Your task to perform on an android device: Show me productivity apps on the Play Store Image 0: 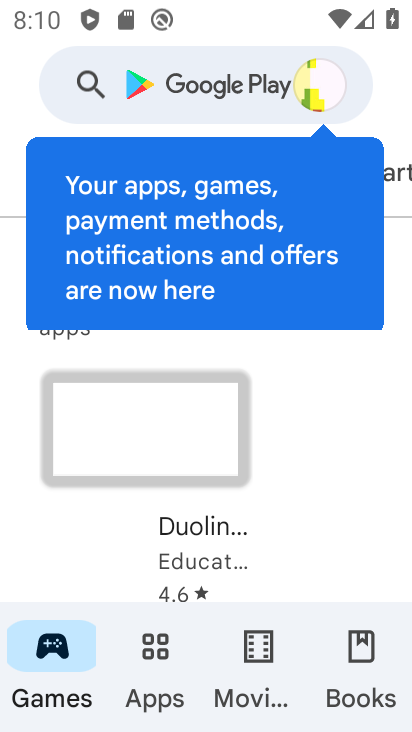
Step 0: press back button
Your task to perform on an android device: Show me productivity apps on the Play Store Image 1: 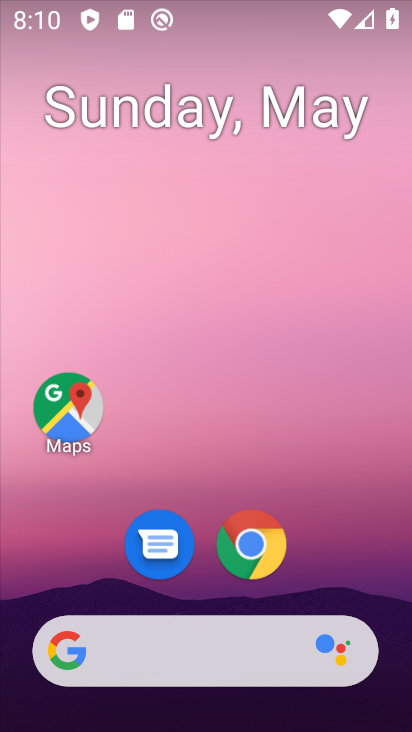
Step 1: drag from (340, 526) to (274, 34)
Your task to perform on an android device: Show me productivity apps on the Play Store Image 2: 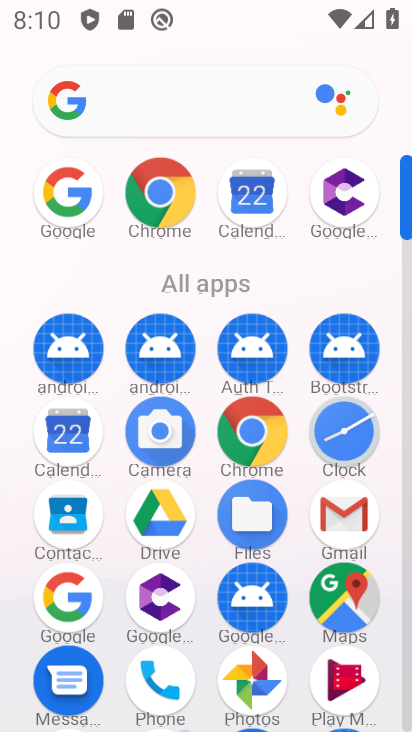
Step 2: drag from (29, 643) to (26, 207)
Your task to perform on an android device: Show me productivity apps on the Play Store Image 3: 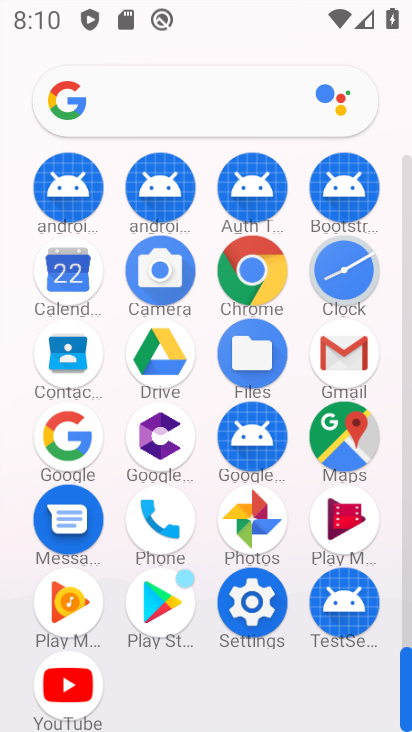
Step 3: click (158, 598)
Your task to perform on an android device: Show me productivity apps on the Play Store Image 4: 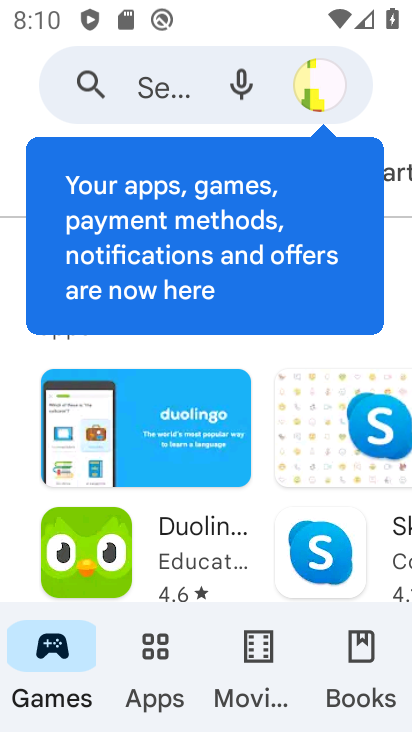
Step 4: click (144, 663)
Your task to perform on an android device: Show me productivity apps on the Play Store Image 5: 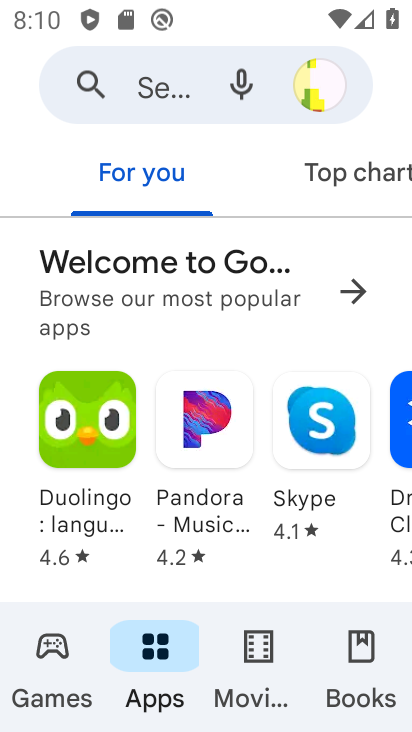
Step 5: drag from (382, 169) to (49, 182)
Your task to perform on an android device: Show me productivity apps on the Play Store Image 6: 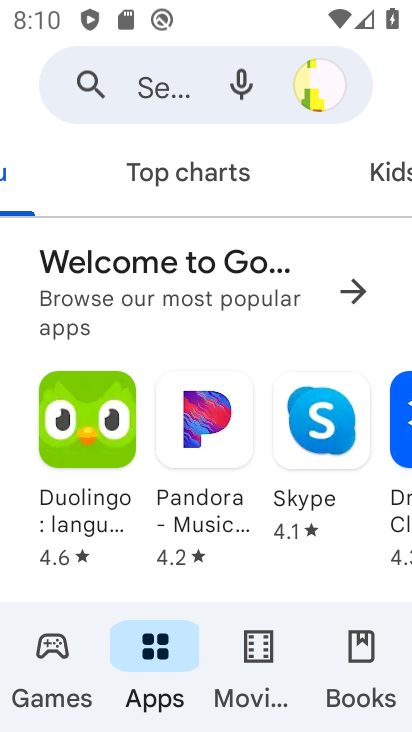
Step 6: drag from (262, 168) to (0, 172)
Your task to perform on an android device: Show me productivity apps on the Play Store Image 7: 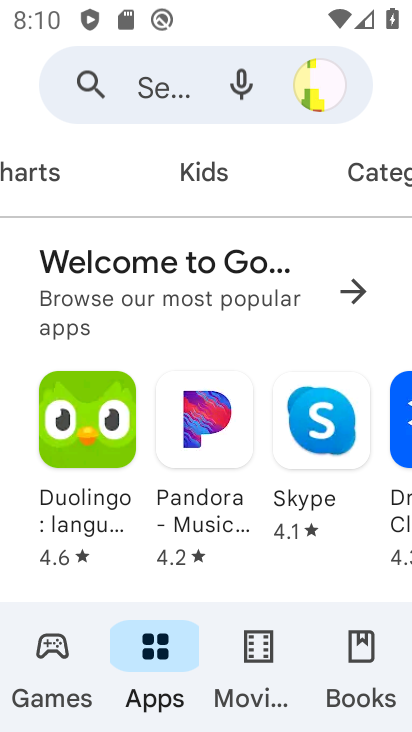
Step 7: click (355, 166)
Your task to perform on an android device: Show me productivity apps on the Play Store Image 8: 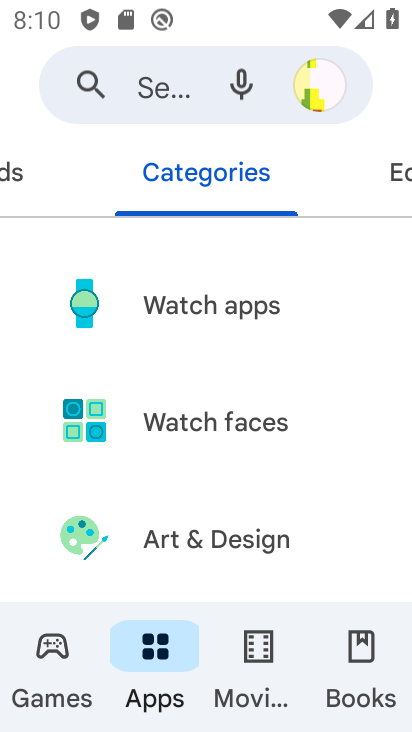
Step 8: drag from (275, 546) to (318, 222)
Your task to perform on an android device: Show me productivity apps on the Play Store Image 9: 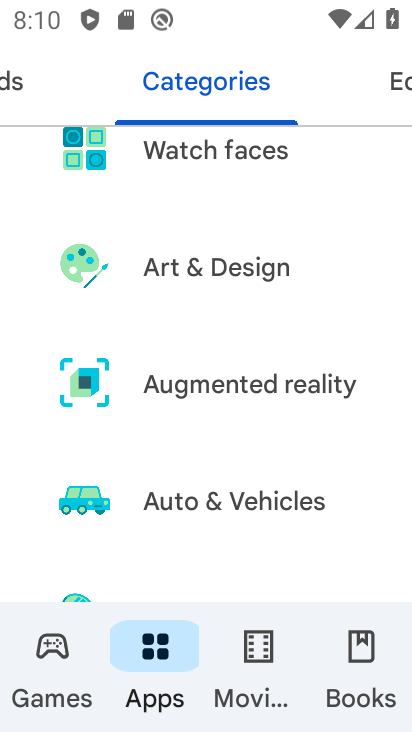
Step 9: drag from (306, 528) to (334, 186)
Your task to perform on an android device: Show me productivity apps on the Play Store Image 10: 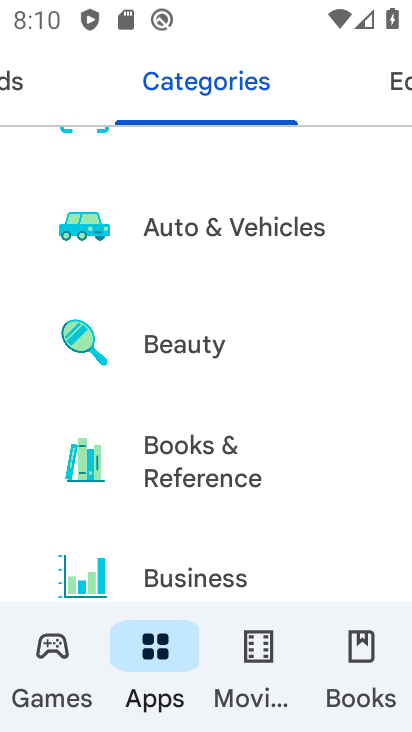
Step 10: drag from (301, 508) to (309, 159)
Your task to perform on an android device: Show me productivity apps on the Play Store Image 11: 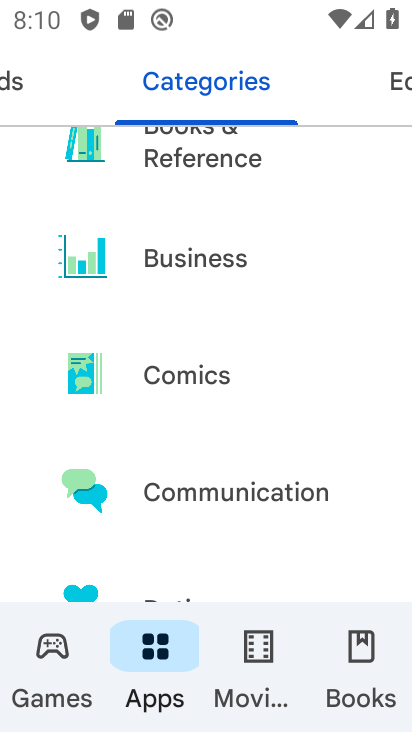
Step 11: drag from (264, 507) to (296, 141)
Your task to perform on an android device: Show me productivity apps on the Play Store Image 12: 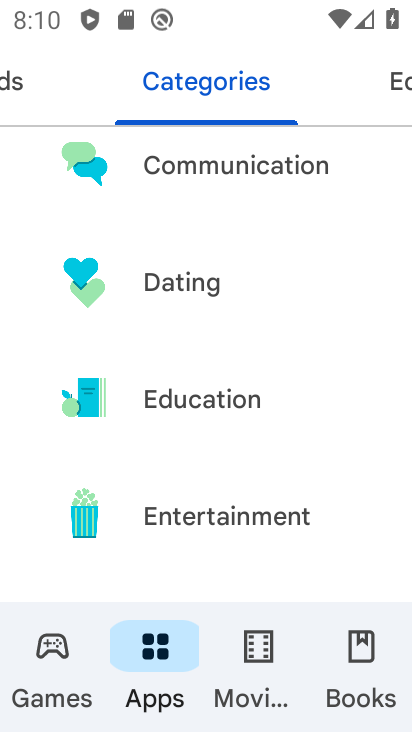
Step 12: drag from (254, 528) to (302, 169)
Your task to perform on an android device: Show me productivity apps on the Play Store Image 13: 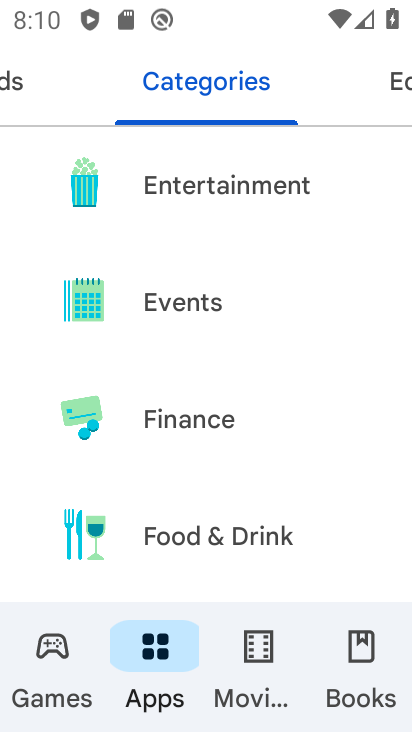
Step 13: drag from (268, 483) to (268, 174)
Your task to perform on an android device: Show me productivity apps on the Play Store Image 14: 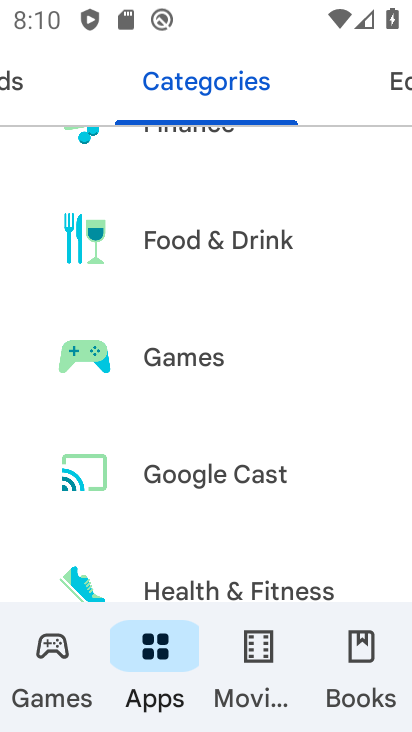
Step 14: drag from (292, 484) to (290, 185)
Your task to perform on an android device: Show me productivity apps on the Play Store Image 15: 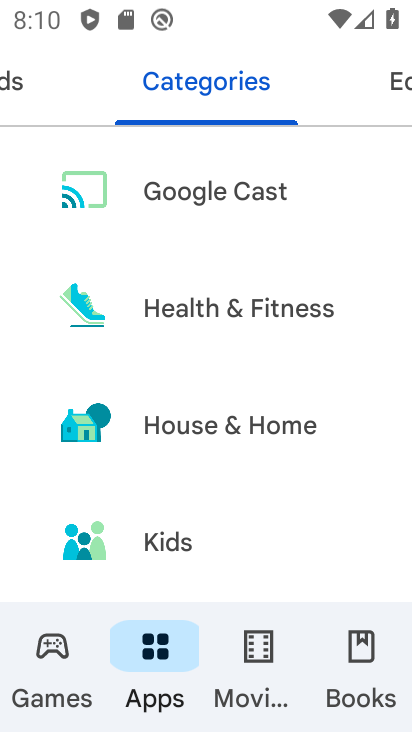
Step 15: drag from (288, 503) to (288, 169)
Your task to perform on an android device: Show me productivity apps on the Play Store Image 16: 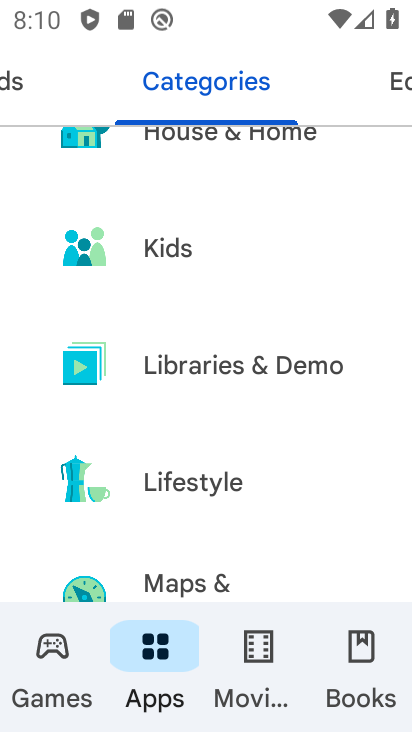
Step 16: drag from (241, 522) to (287, 195)
Your task to perform on an android device: Show me productivity apps on the Play Store Image 17: 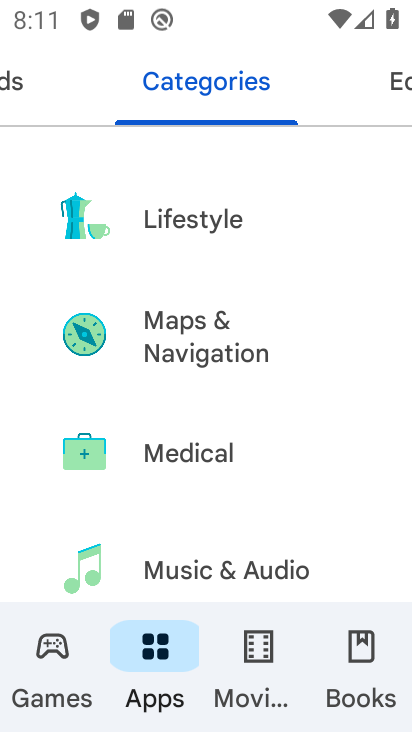
Step 17: drag from (235, 523) to (251, 233)
Your task to perform on an android device: Show me productivity apps on the Play Store Image 18: 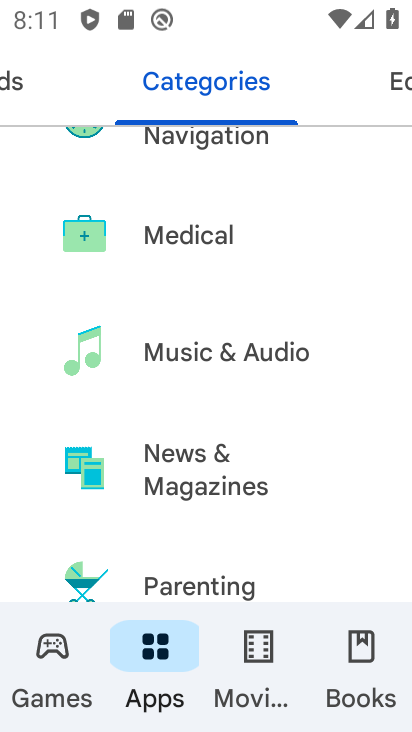
Step 18: drag from (259, 435) to (297, 165)
Your task to perform on an android device: Show me productivity apps on the Play Store Image 19: 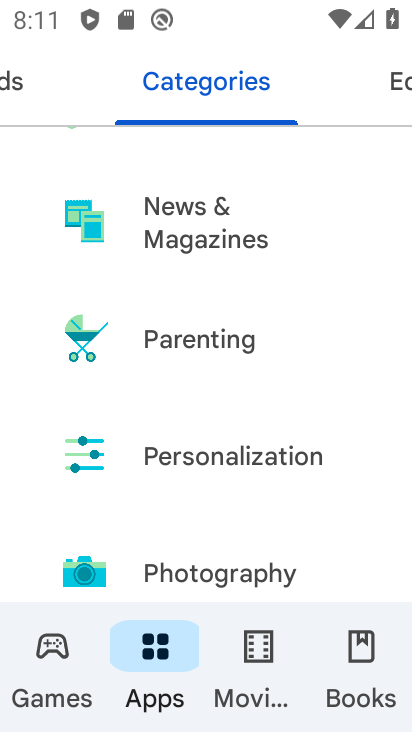
Step 19: drag from (276, 477) to (293, 140)
Your task to perform on an android device: Show me productivity apps on the Play Store Image 20: 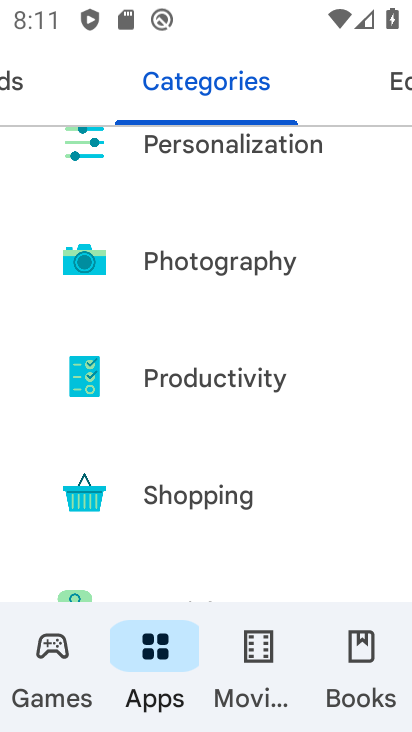
Step 20: click (217, 384)
Your task to perform on an android device: Show me productivity apps on the Play Store Image 21: 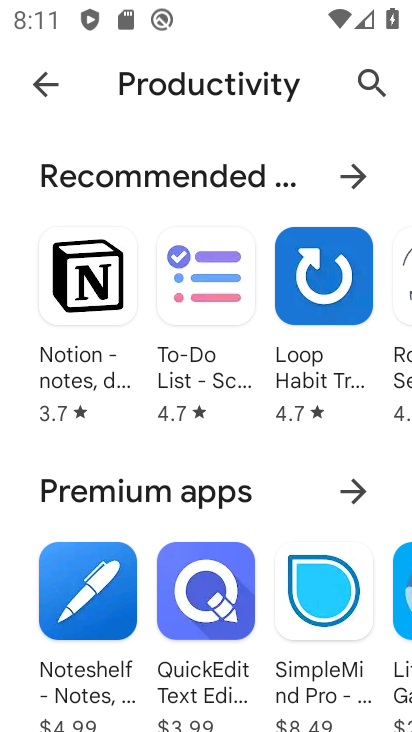
Step 21: task complete